Your task to perform on an android device: Search for logitech g pro on newegg, select the first entry, add it to the cart, then select checkout. Image 0: 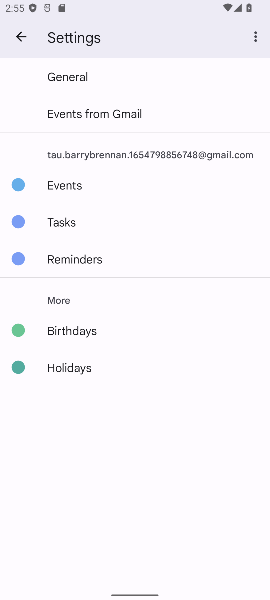
Step 0: press home button
Your task to perform on an android device: Search for logitech g pro on newegg, select the first entry, add it to the cart, then select checkout. Image 1: 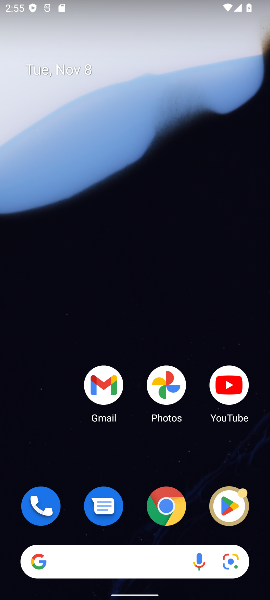
Step 1: drag from (131, 522) to (208, 17)
Your task to perform on an android device: Search for logitech g pro on newegg, select the first entry, add it to the cart, then select checkout. Image 2: 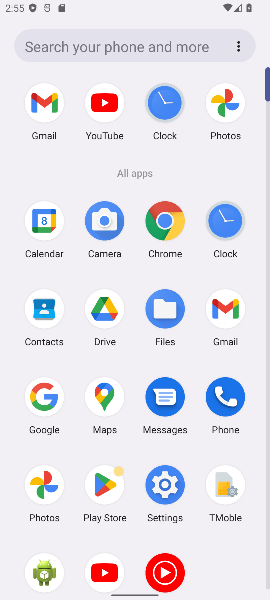
Step 2: click (59, 407)
Your task to perform on an android device: Search for logitech g pro on newegg, select the first entry, add it to the cart, then select checkout. Image 3: 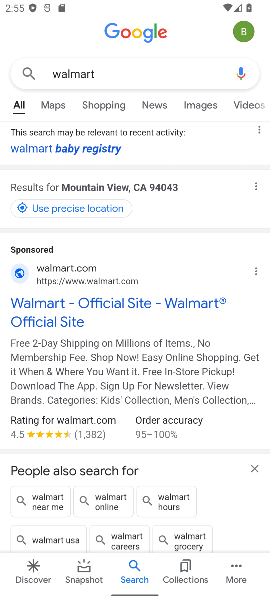
Step 3: click (145, 82)
Your task to perform on an android device: Search for logitech g pro on newegg, select the first entry, add it to the cart, then select checkout. Image 4: 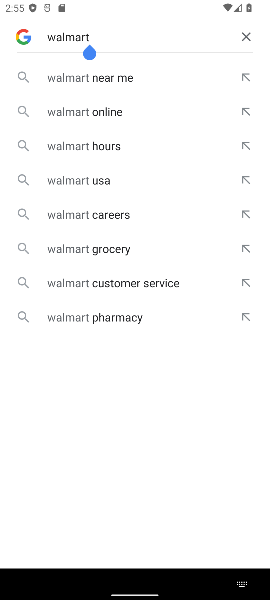
Step 4: click (247, 36)
Your task to perform on an android device: Search for logitech g pro on newegg, select the first entry, add it to the cart, then select checkout. Image 5: 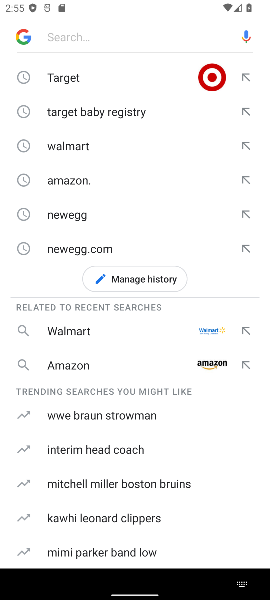
Step 5: type "newegg"
Your task to perform on an android device: Search for logitech g pro on newegg, select the first entry, add it to the cart, then select checkout. Image 6: 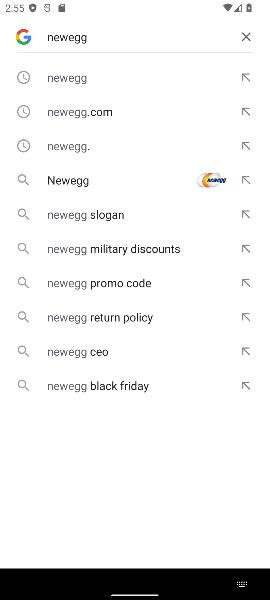
Step 6: click (100, 77)
Your task to perform on an android device: Search for logitech g pro on newegg, select the first entry, add it to the cart, then select checkout. Image 7: 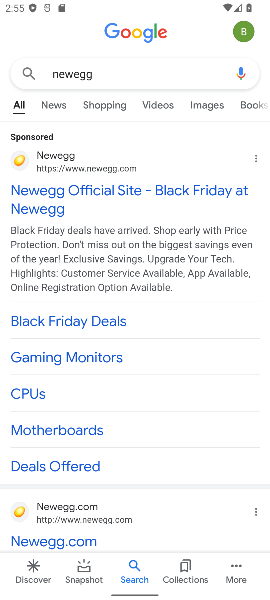
Step 7: click (40, 202)
Your task to perform on an android device: Search for logitech g pro on newegg, select the first entry, add it to the cart, then select checkout. Image 8: 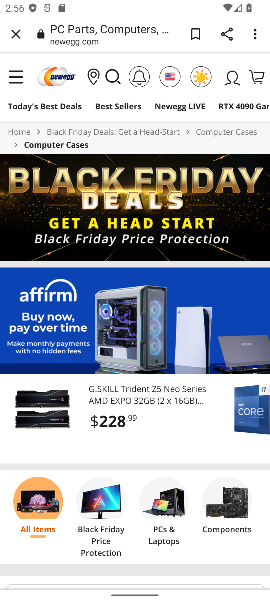
Step 8: click (120, 80)
Your task to perform on an android device: Search for logitech g pro on newegg, select the first entry, add it to the cart, then select checkout. Image 9: 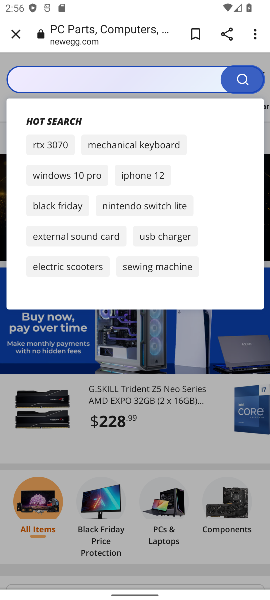
Step 9: click (124, 79)
Your task to perform on an android device: Search for logitech g pro on newegg, select the first entry, add it to the cart, then select checkout. Image 10: 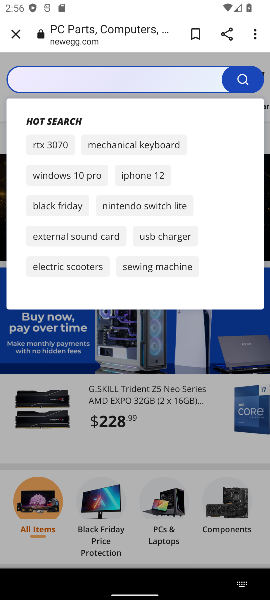
Step 10: type "logitech g pro"
Your task to perform on an android device: Search for logitech g pro on newegg, select the first entry, add it to the cart, then select checkout. Image 11: 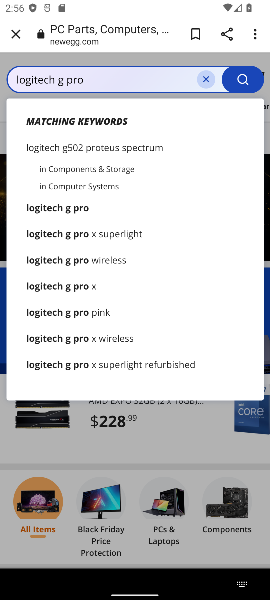
Step 11: click (76, 207)
Your task to perform on an android device: Search for logitech g pro on newegg, select the first entry, add it to the cart, then select checkout. Image 12: 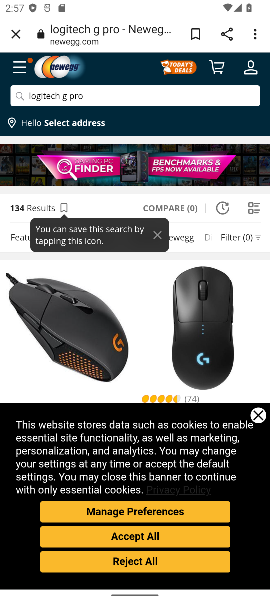
Step 12: click (263, 419)
Your task to perform on an android device: Search for logitech g pro on newegg, select the first entry, add it to the cart, then select checkout. Image 13: 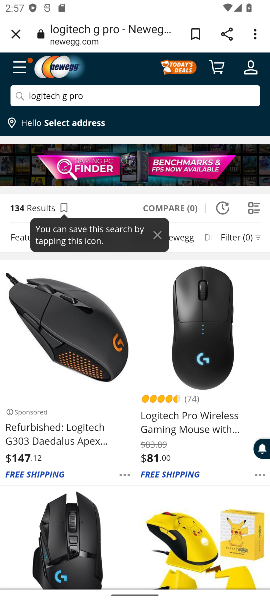
Step 13: click (51, 402)
Your task to perform on an android device: Search for logitech g pro on newegg, select the first entry, add it to the cart, then select checkout. Image 14: 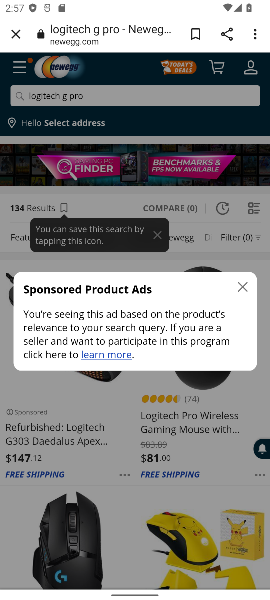
Step 14: click (242, 282)
Your task to perform on an android device: Search for logitech g pro on newegg, select the first entry, add it to the cart, then select checkout. Image 15: 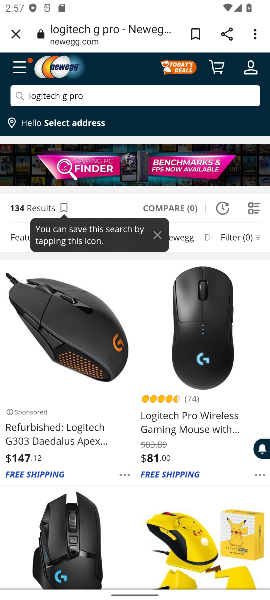
Step 15: click (66, 359)
Your task to perform on an android device: Search for logitech g pro on newegg, select the first entry, add it to the cart, then select checkout. Image 16: 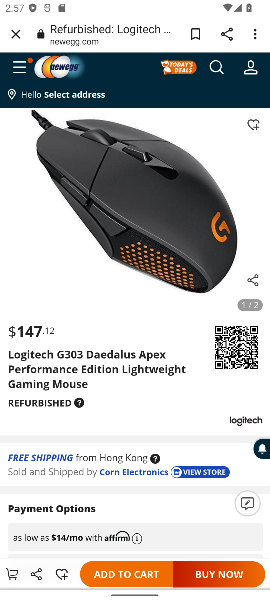
Step 16: click (136, 574)
Your task to perform on an android device: Search for logitech g pro on newegg, select the first entry, add it to the cart, then select checkout. Image 17: 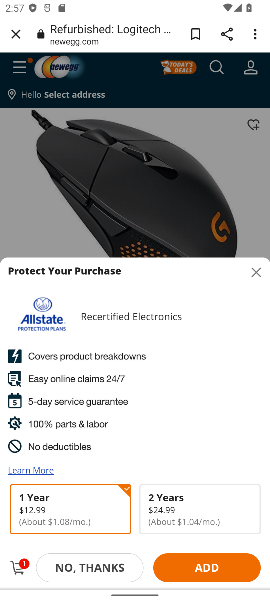
Step 17: click (126, 567)
Your task to perform on an android device: Search for logitech g pro on newegg, select the first entry, add it to the cart, then select checkout. Image 18: 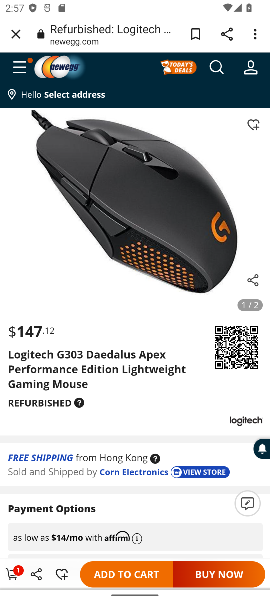
Step 18: click (11, 573)
Your task to perform on an android device: Search for logitech g pro on newegg, select the first entry, add it to the cart, then select checkout. Image 19: 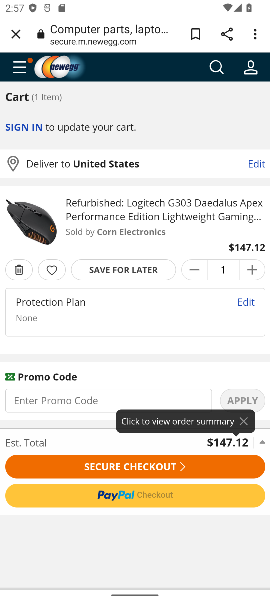
Step 19: click (134, 472)
Your task to perform on an android device: Search for logitech g pro on newegg, select the first entry, add it to the cart, then select checkout. Image 20: 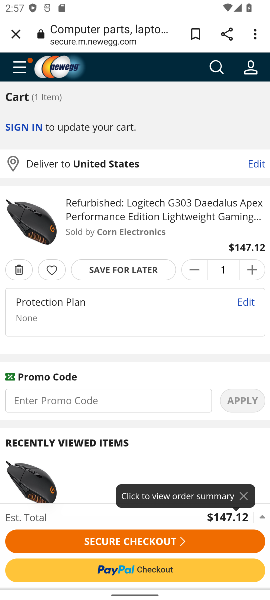
Step 20: click (131, 540)
Your task to perform on an android device: Search for logitech g pro on newegg, select the first entry, add it to the cart, then select checkout. Image 21: 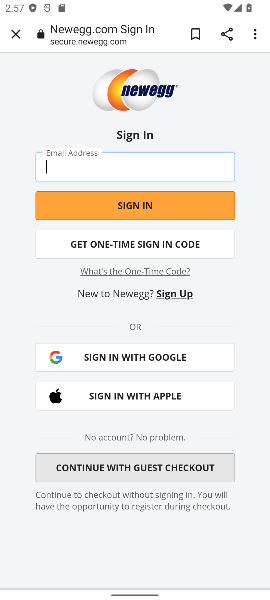
Step 21: task complete